Your task to perform on an android device: turn notification dots on Image 0: 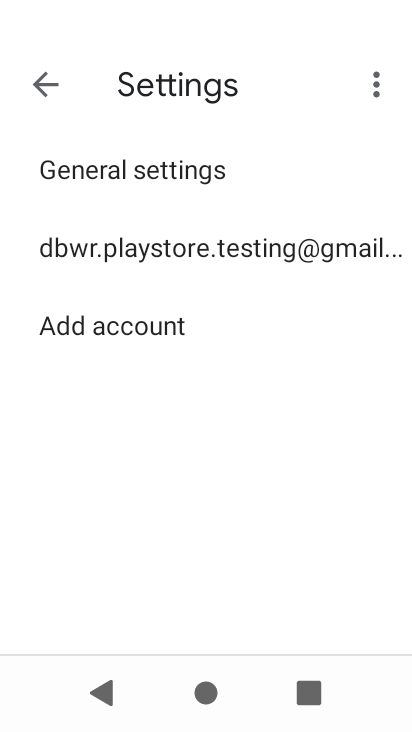
Step 0: press home button
Your task to perform on an android device: turn notification dots on Image 1: 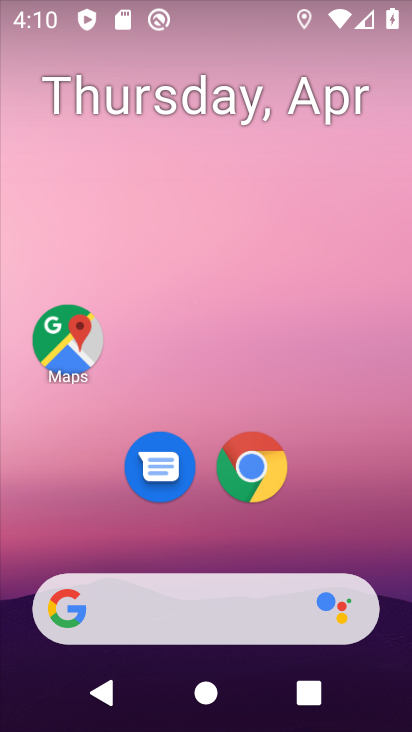
Step 1: drag from (222, 509) to (275, 142)
Your task to perform on an android device: turn notification dots on Image 2: 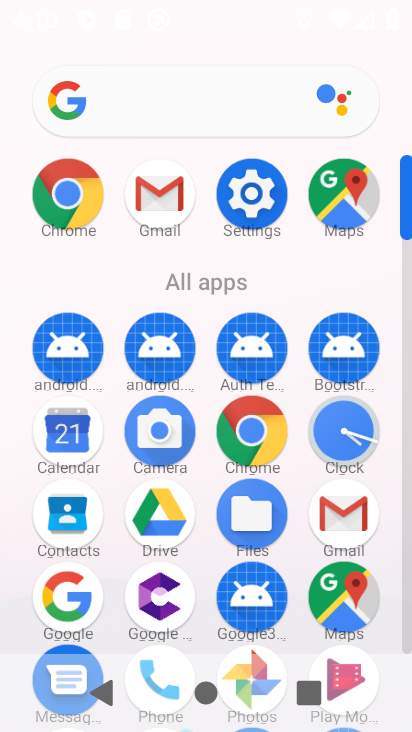
Step 2: click (237, 192)
Your task to perform on an android device: turn notification dots on Image 3: 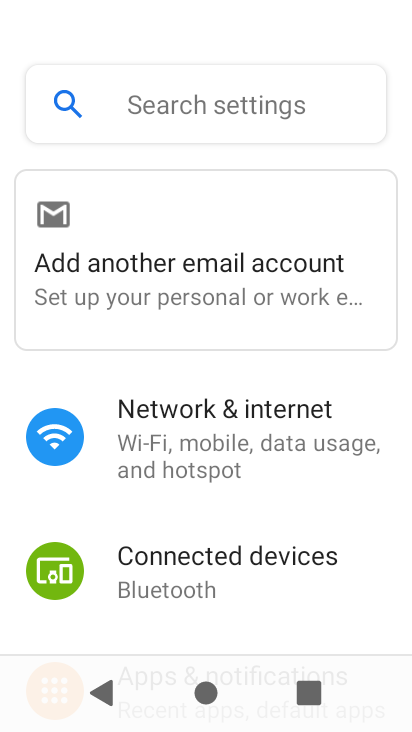
Step 3: drag from (222, 561) to (258, 213)
Your task to perform on an android device: turn notification dots on Image 4: 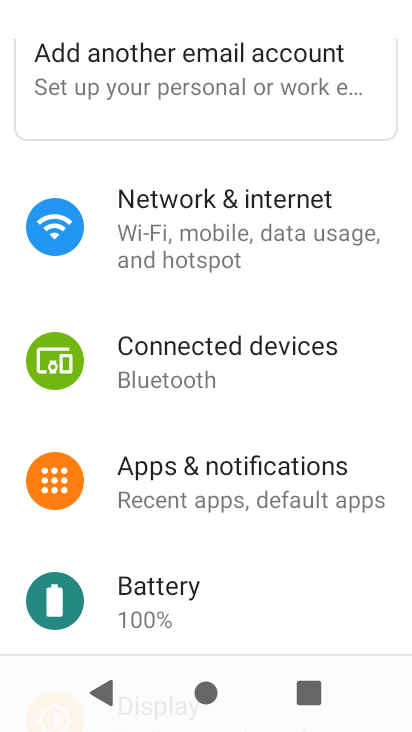
Step 4: click (217, 488)
Your task to perform on an android device: turn notification dots on Image 5: 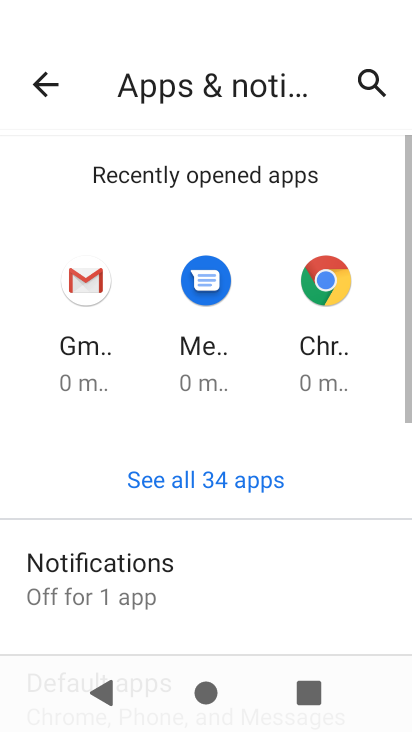
Step 5: drag from (163, 562) to (186, 411)
Your task to perform on an android device: turn notification dots on Image 6: 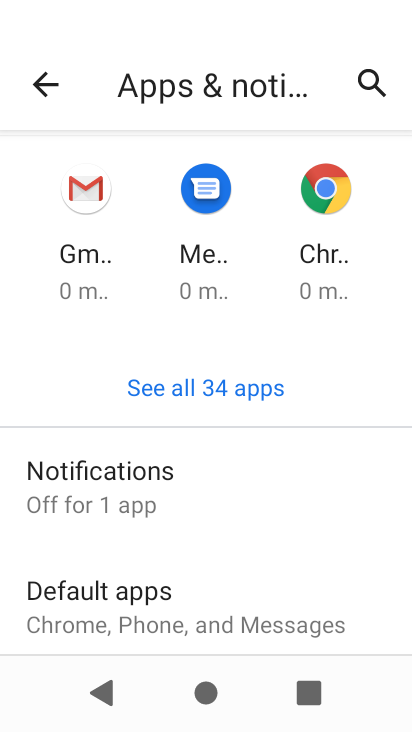
Step 6: click (79, 485)
Your task to perform on an android device: turn notification dots on Image 7: 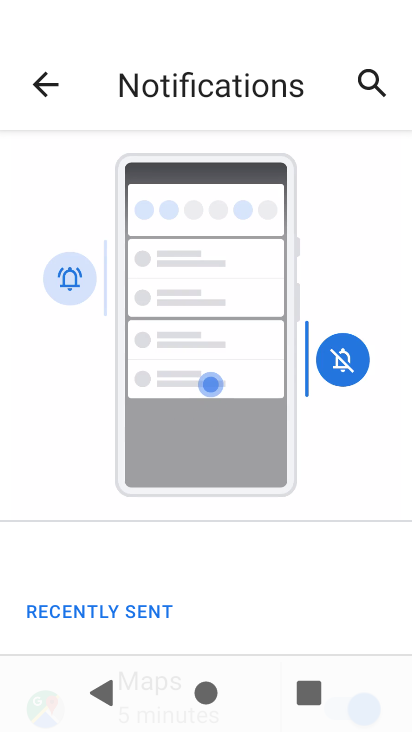
Step 7: drag from (188, 580) to (237, 253)
Your task to perform on an android device: turn notification dots on Image 8: 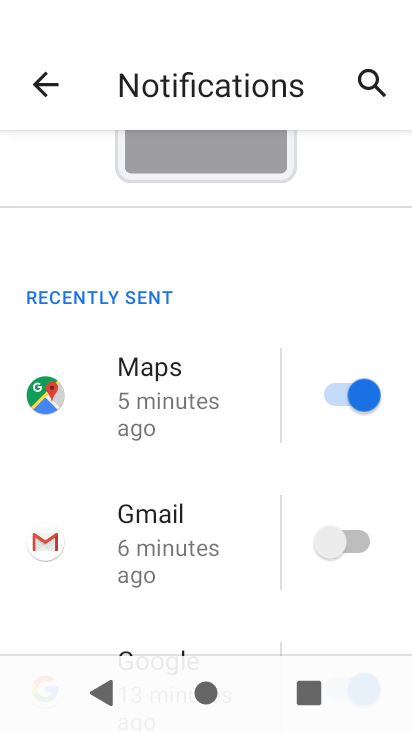
Step 8: drag from (189, 528) to (235, 191)
Your task to perform on an android device: turn notification dots on Image 9: 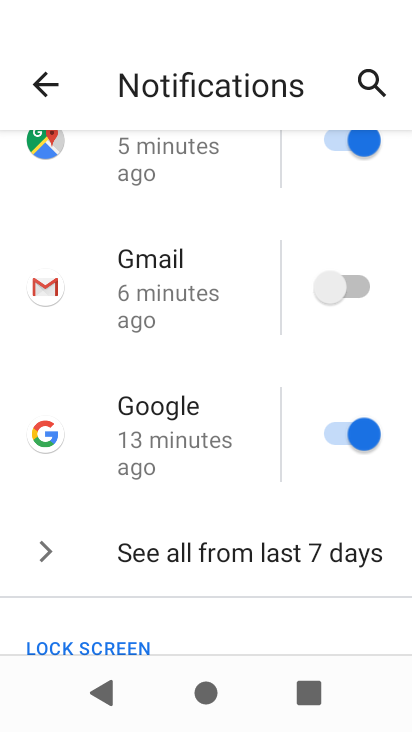
Step 9: drag from (194, 549) to (249, 168)
Your task to perform on an android device: turn notification dots on Image 10: 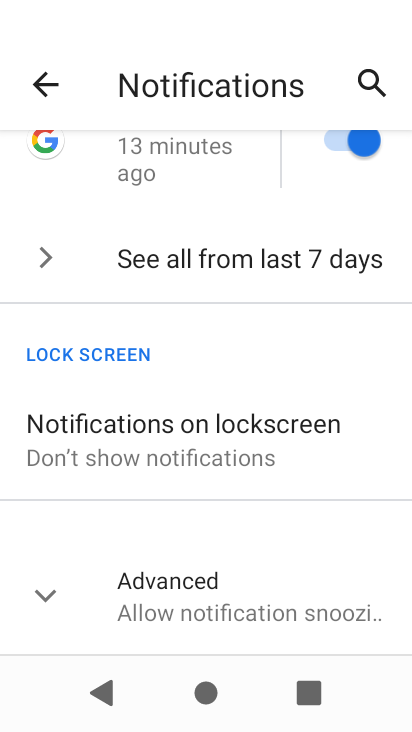
Step 10: click (138, 577)
Your task to perform on an android device: turn notification dots on Image 11: 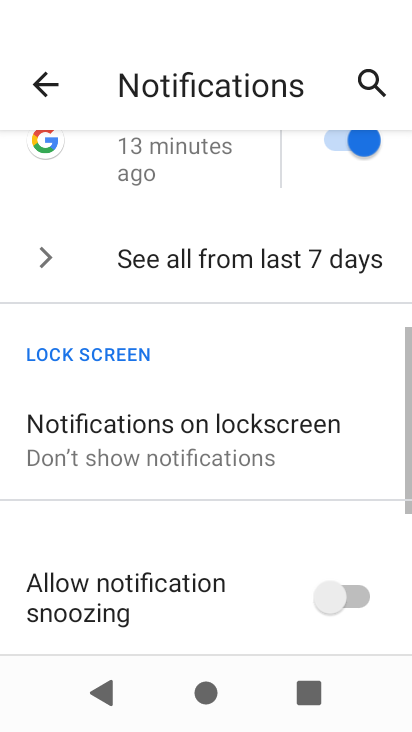
Step 11: task complete